Your task to perform on an android device: Do I have any events this weekend? Image 0: 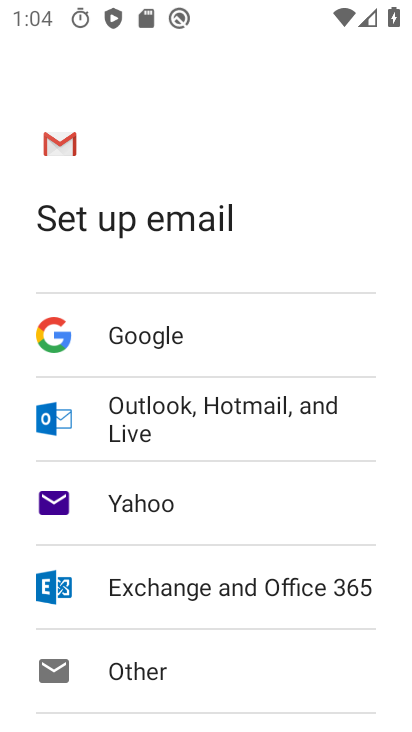
Step 0: press home button
Your task to perform on an android device: Do I have any events this weekend? Image 1: 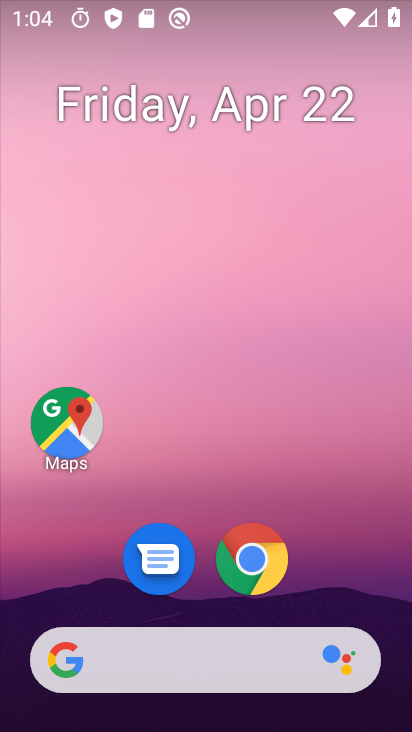
Step 1: drag from (365, 568) to (323, 217)
Your task to perform on an android device: Do I have any events this weekend? Image 2: 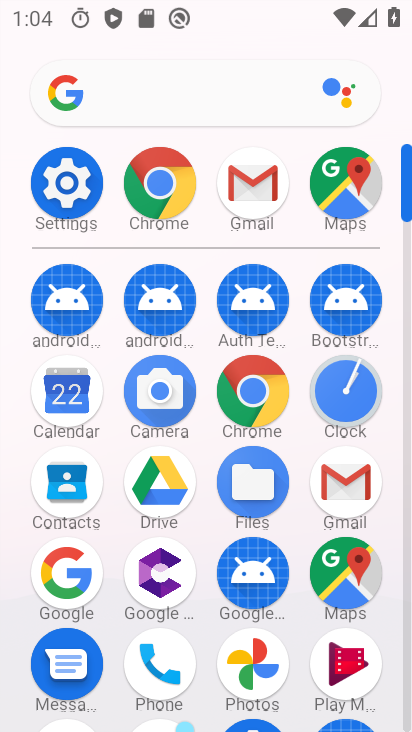
Step 2: click (55, 412)
Your task to perform on an android device: Do I have any events this weekend? Image 3: 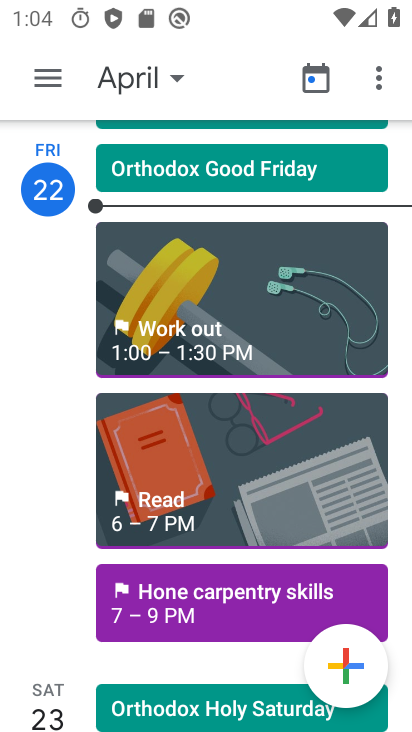
Step 3: drag from (263, 566) to (271, 400)
Your task to perform on an android device: Do I have any events this weekend? Image 4: 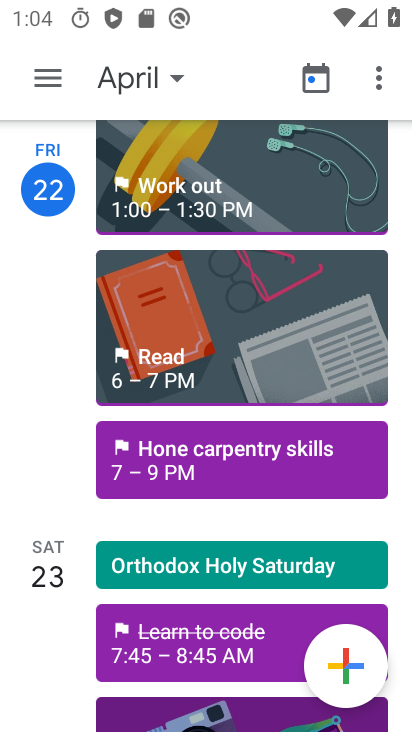
Step 4: drag from (239, 611) to (263, 351)
Your task to perform on an android device: Do I have any events this weekend? Image 5: 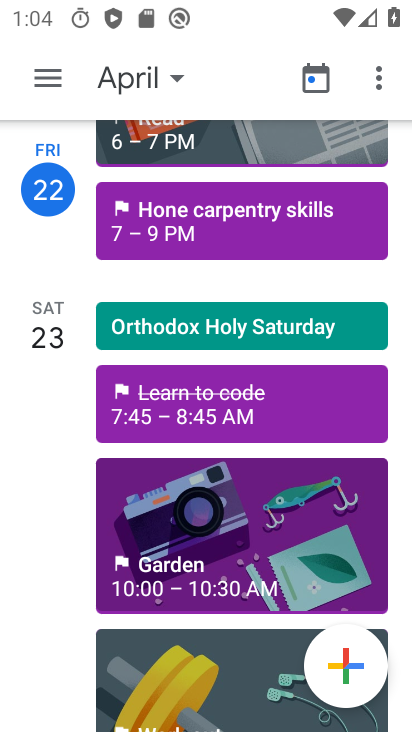
Step 5: drag from (234, 609) to (260, 438)
Your task to perform on an android device: Do I have any events this weekend? Image 6: 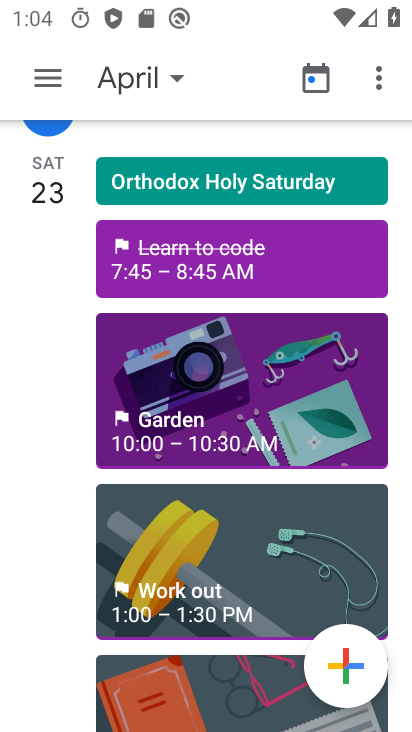
Step 6: drag from (235, 556) to (255, 468)
Your task to perform on an android device: Do I have any events this weekend? Image 7: 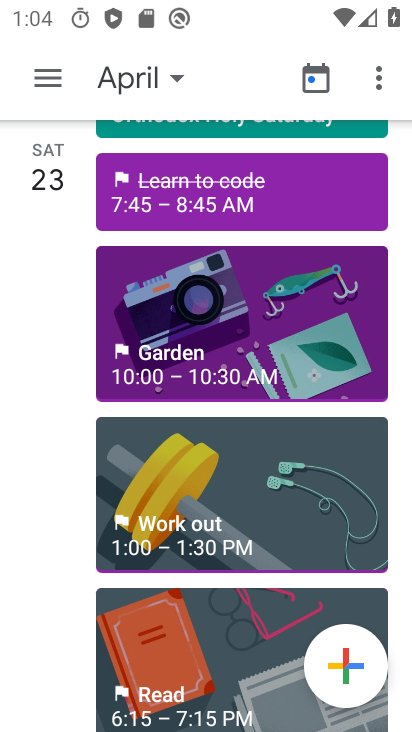
Step 7: click (268, 304)
Your task to perform on an android device: Do I have any events this weekend? Image 8: 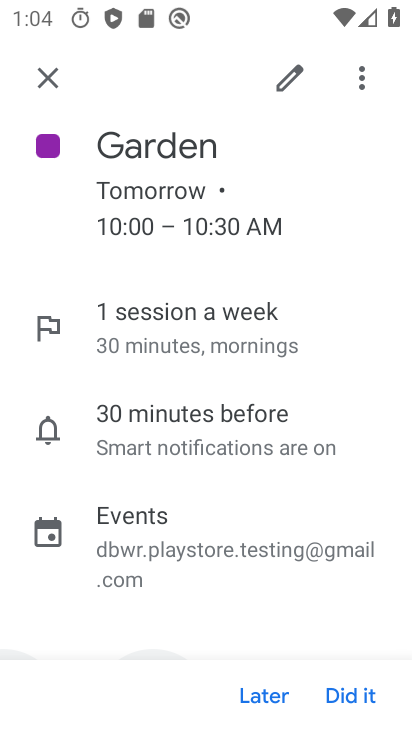
Step 8: task complete